Your task to perform on an android device: see sites visited before in the chrome app Image 0: 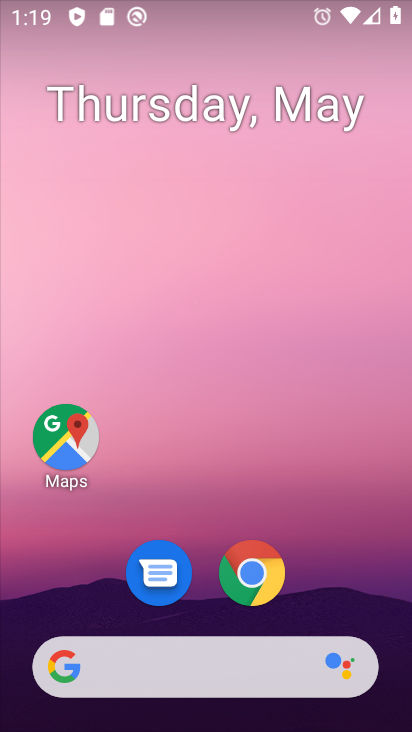
Step 0: click (237, 571)
Your task to perform on an android device: see sites visited before in the chrome app Image 1: 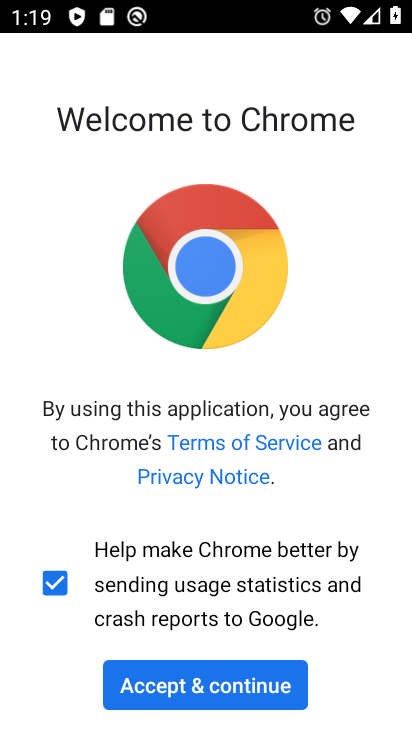
Step 1: click (261, 673)
Your task to perform on an android device: see sites visited before in the chrome app Image 2: 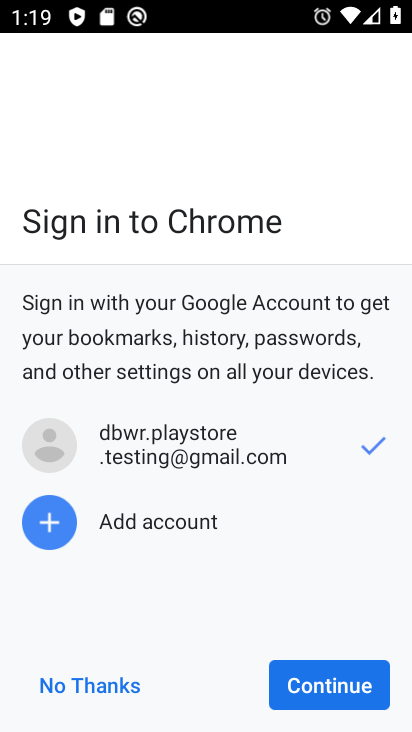
Step 2: click (320, 700)
Your task to perform on an android device: see sites visited before in the chrome app Image 3: 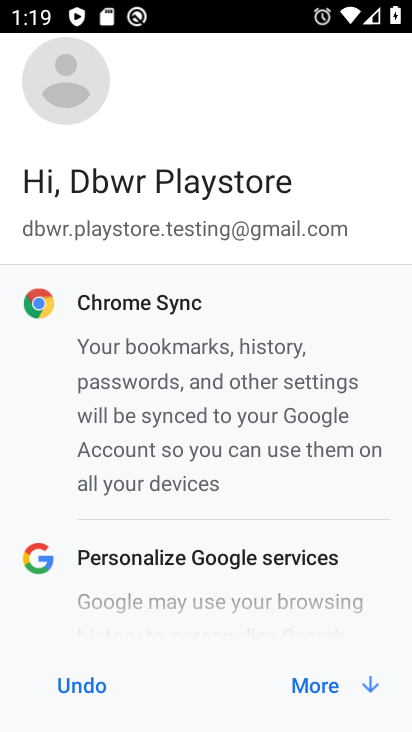
Step 3: click (330, 689)
Your task to perform on an android device: see sites visited before in the chrome app Image 4: 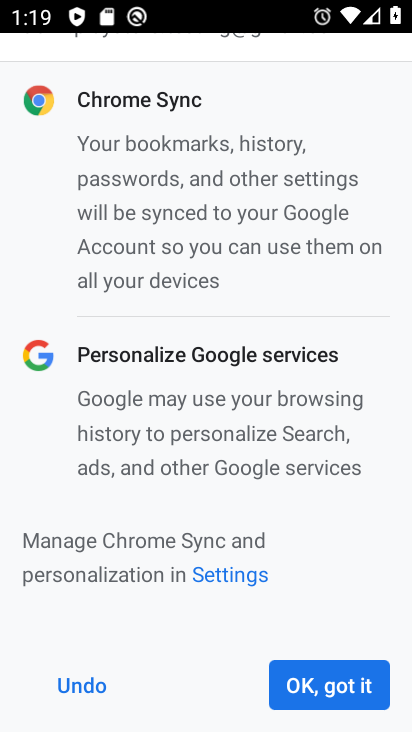
Step 4: click (330, 689)
Your task to perform on an android device: see sites visited before in the chrome app Image 5: 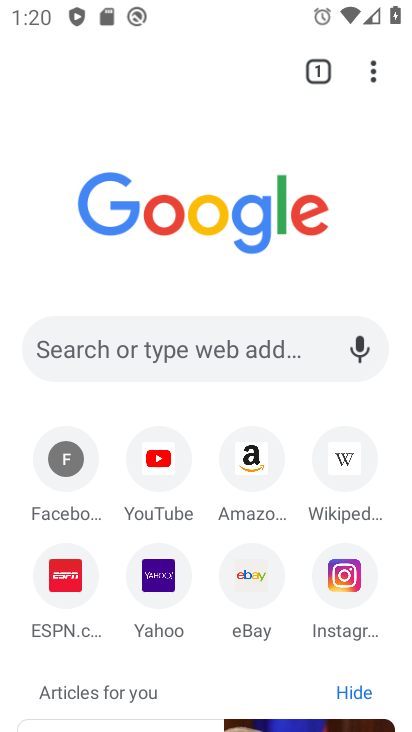
Step 5: click (368, 78)
Your task to perform on an android device: see sites visited before in the chrome app Image 6: 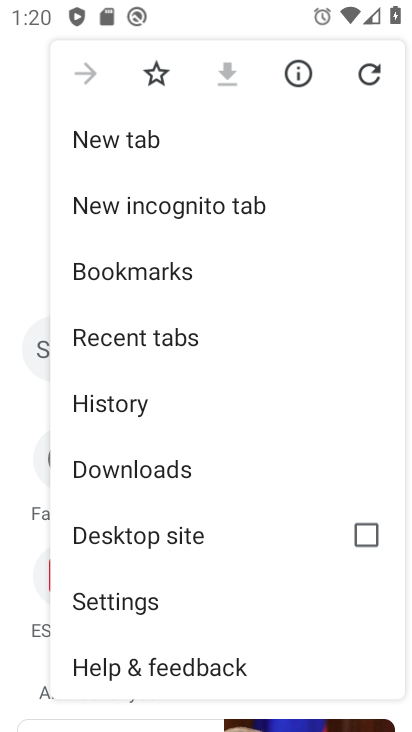
Step 6: click (123, 339)
Your task to perform on an android device: see sites visited before in the chrome app Image 7: 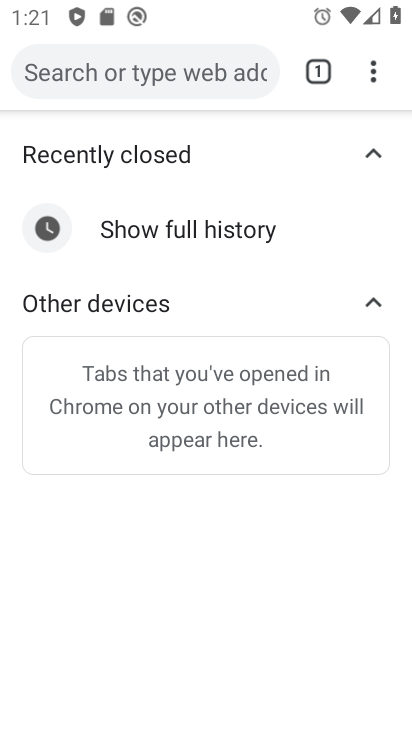
Step 7: task complete